Your task to perform on an android device: change your default location settings in chrome Image 0: 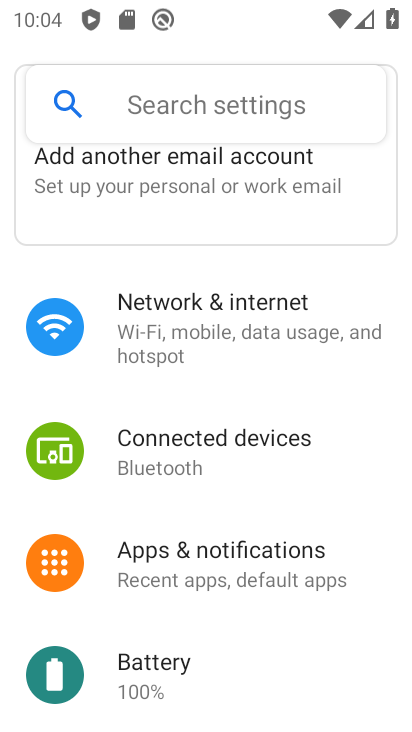
Step 0: press back button
Your task to perform on an android device: change your default location settings in chrome Image 1: 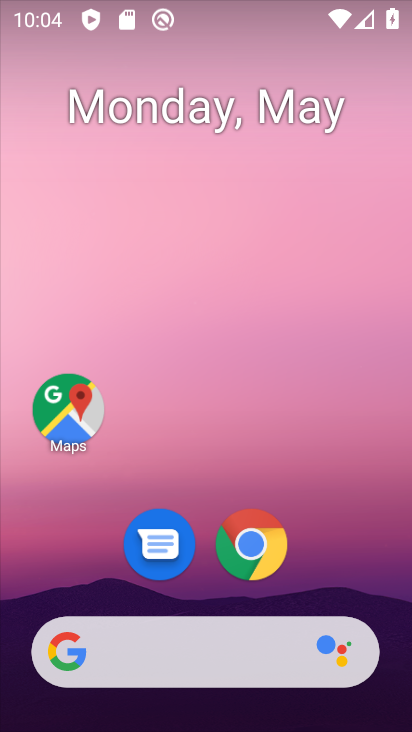
Step 1: drag from (267, 685) to (200, 214)
Your task to perform on an android device: change your default location settings in chrome Image 2: 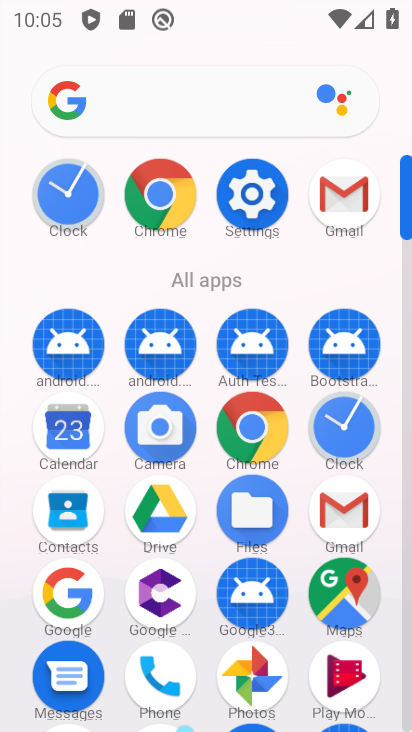
Step 2: click (177, 192)
Your task to perform on an android device: change your default location settings in chrome Image 3: 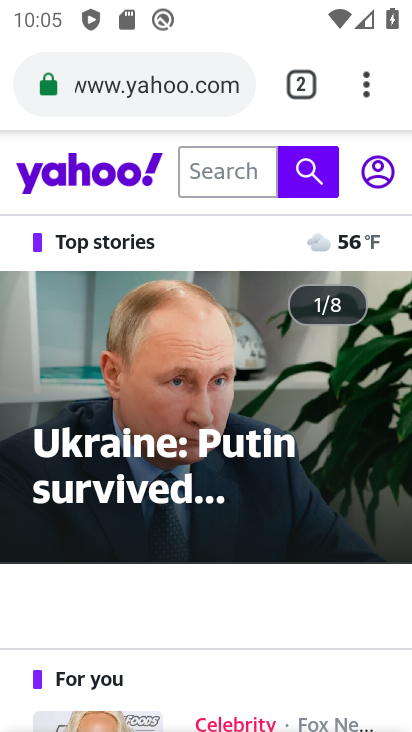
Step 3: drag from (362, 87) to (79, 589)
Your task to perform on an android device: change your default location settings in chrome Image 4: 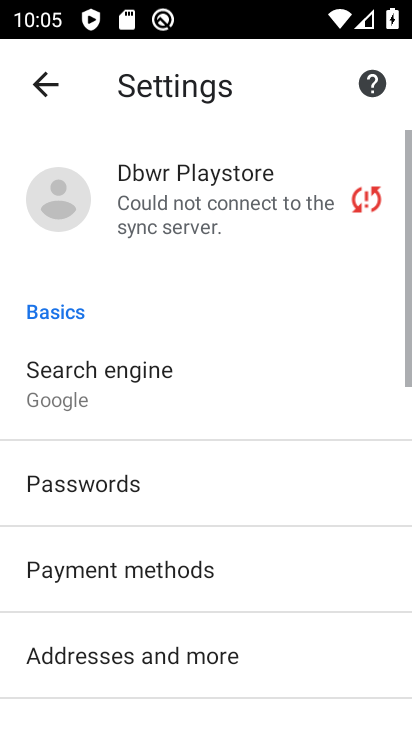
Step 4: drag from (106, 570) to (42, 276)
Your task to perform on an android device: change your default location settings in chrome Image 5: 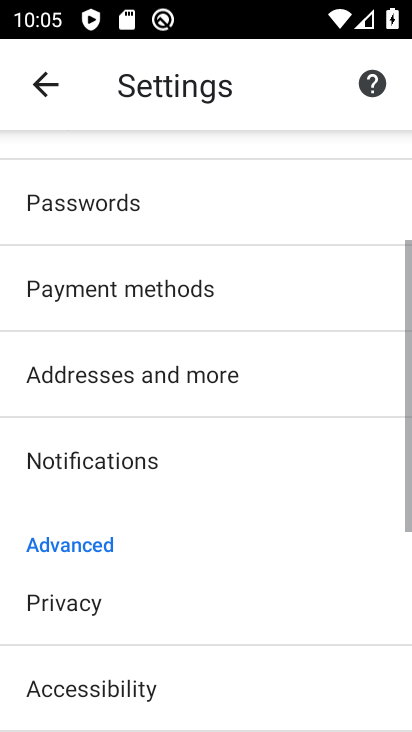
Step 5: drag from (120, 522) to (102, 290)
Your task to perform on an android device: change your default location settings in chrome Image 6: 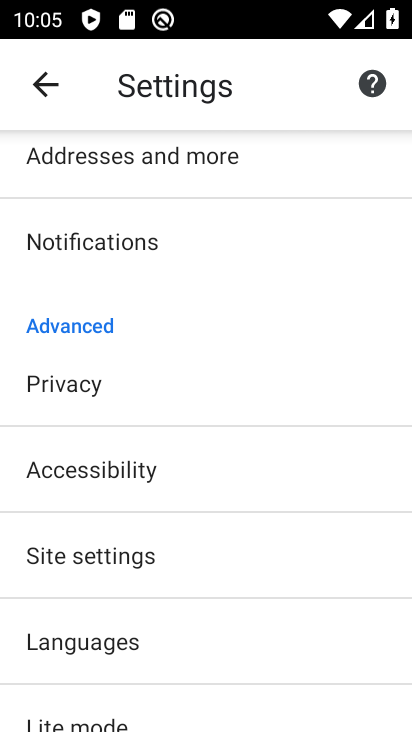
Step 6: click (85, 544)
Your task to perform on an android device: change your default location settings in chrome Image 7: 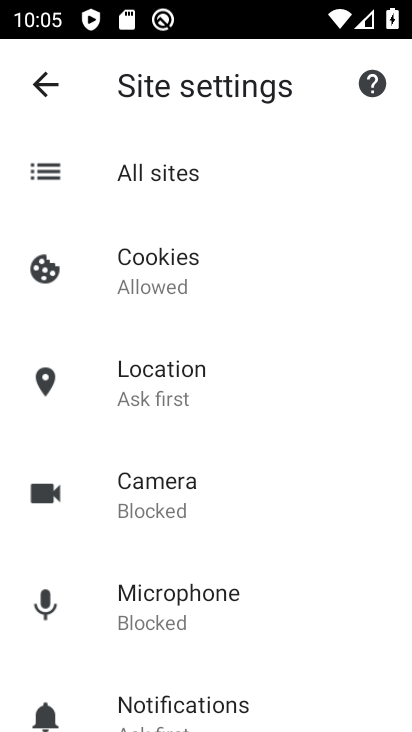
Step 7: click (135, 391)
Your task to perform on an android device: change your default location settings in chrome Image 8: 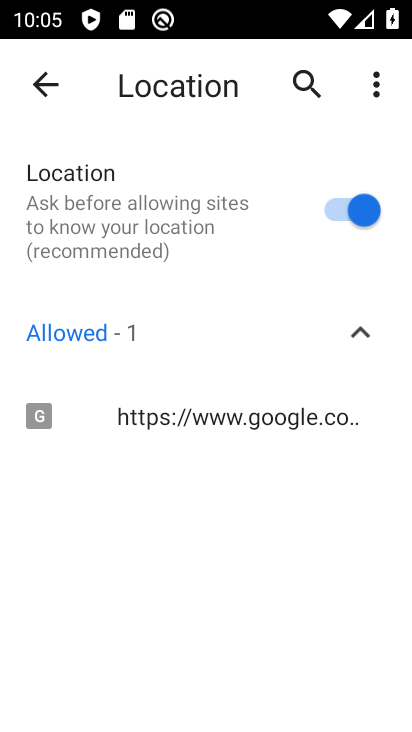
Step 8: click (349, 208)
Your task to perform on an android device: change your default location settings in chrome Image 9: 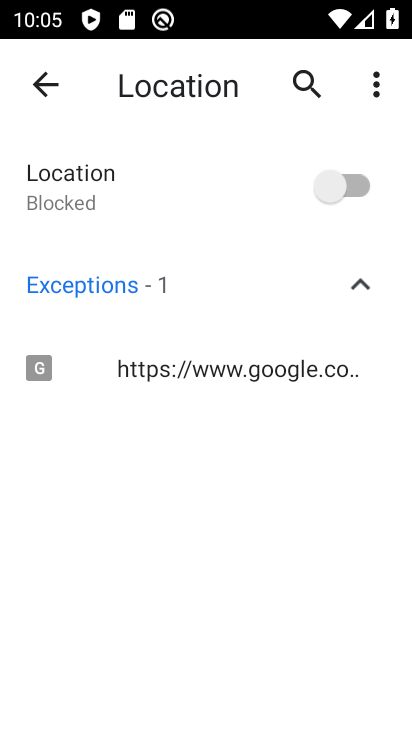
Step 9: task complete